Your task to perform on an android device: make emails show in primary in the gmail app Image 0: 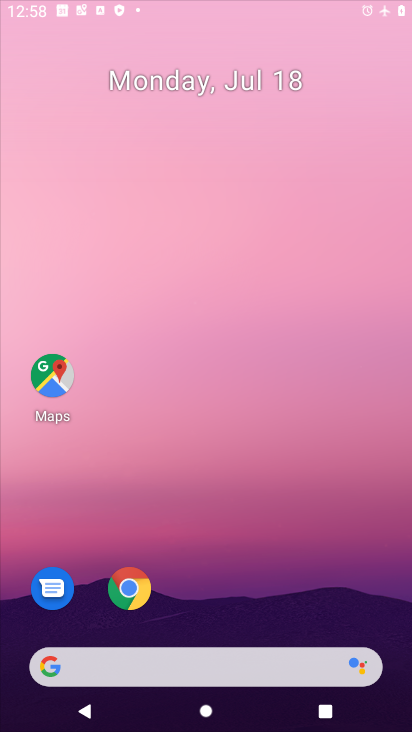
Step 0: drag from (190, 618) to (237, 302)
Your task to perform on an android device: make emails show in primary in the gmail app Image 1: 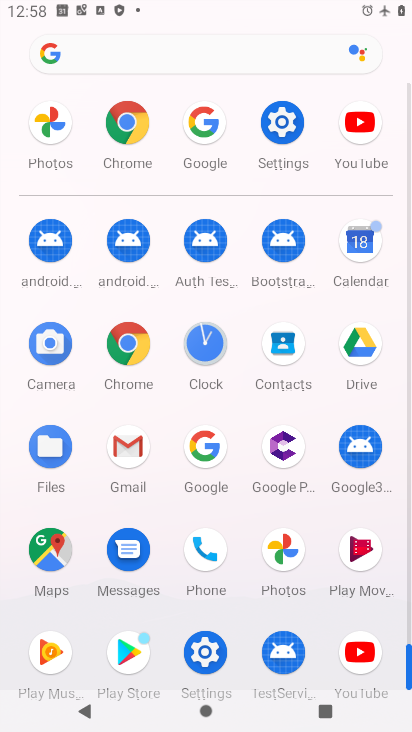
Step 1: click (135, 467)
Your task to perform on an android device: make emails show in primary in the gmail app Image 2: 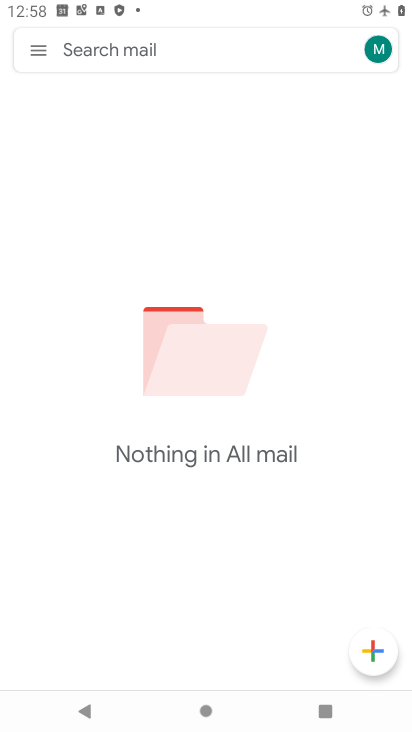
Step 2: click (47, 51)
Your task to perform on an android device: make emails show in primary in the gmail app Image 3: 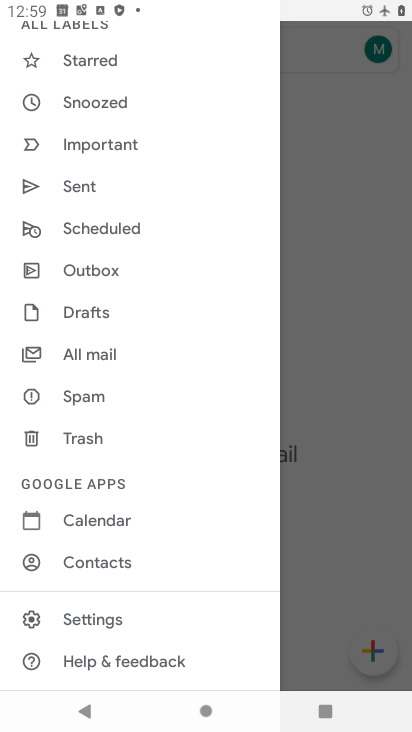
Step 3: click (118, 613)
Your task to perform on an android device: make emails show in primary in the gmail app Image 4: 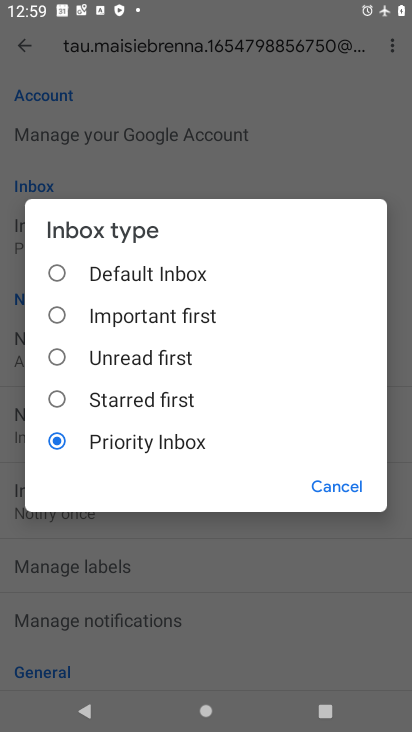
Step 4: task complete